Your task to perform on an android device: find snoozed emails in the gmail app Image 0: 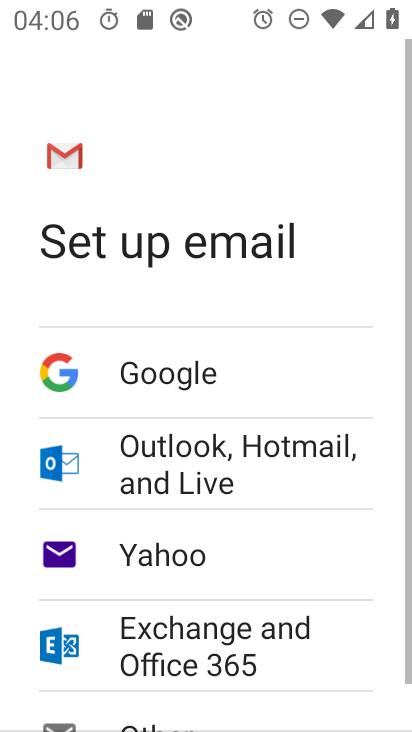
Step 0: press home button
Your task to perform on an android device: find snoozed emails in the gmail app Image 1: 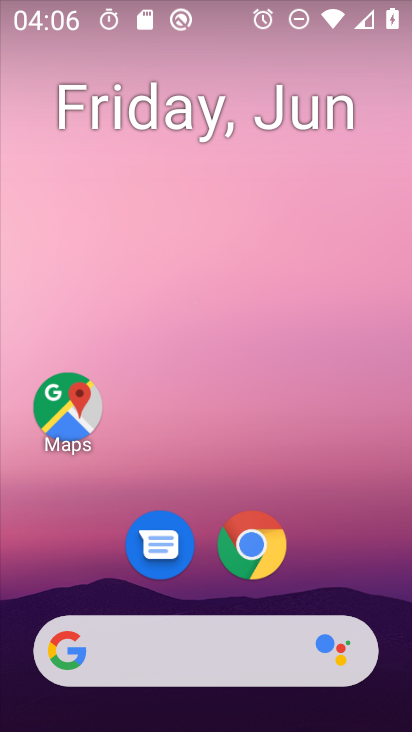
Step 1: drag from (314, 314) to (309, 59)
Your task to perform on an android device: find snoozed emails in the gmail app Image 2: 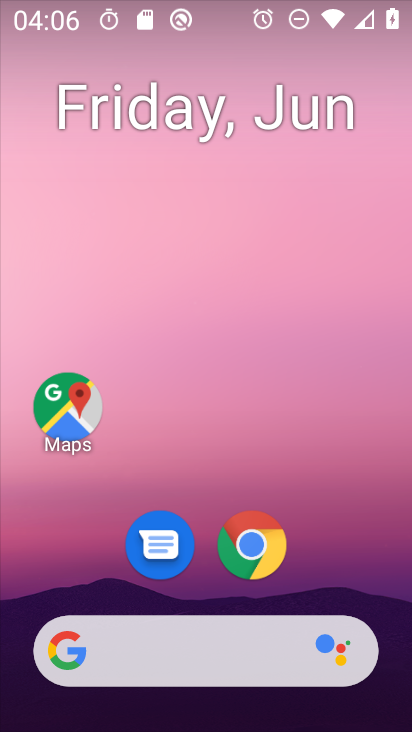
Step 2: drag from (354, 561) to (334, 5)
Your task to perform on an android device: find snoozed emails in the gmail app Image 3: 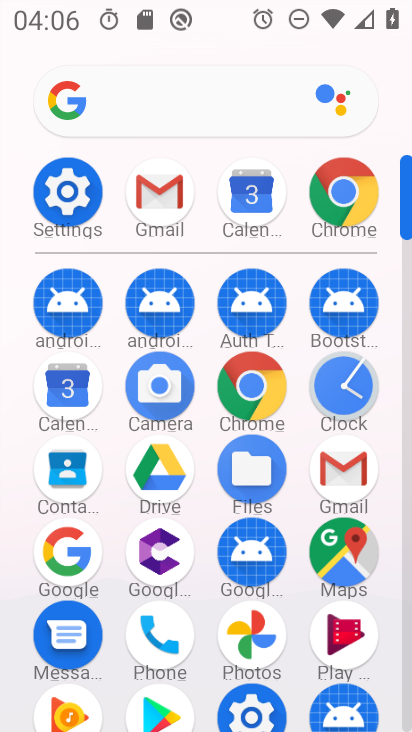
Step 3: click (162, 187)
Your task to perform on an android device: find snoozed emails in the gmail app Image 4: 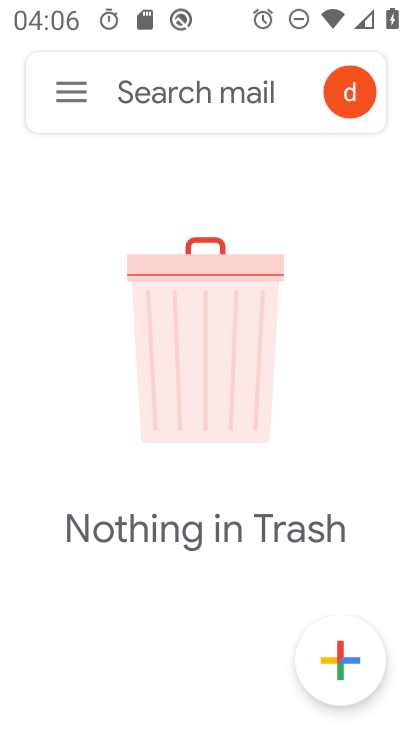
Step 4: click (77, 99)
Your task to perform on an android device: find snoozed emails in the gmail app Image 5: 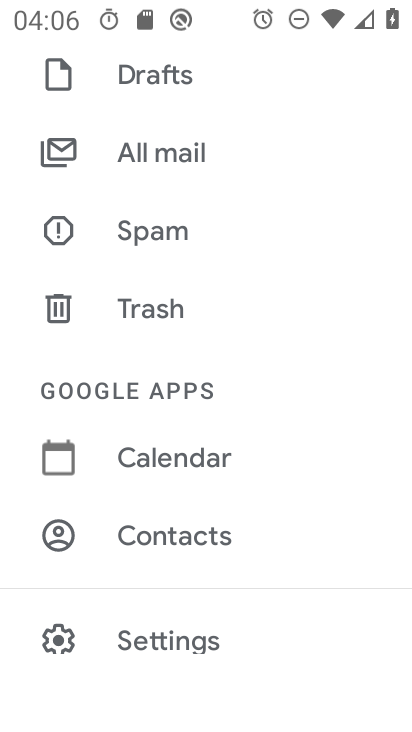
Step 5: drag from (240, 598) to (245, 638)
Your task to perform on an android device: find snoozed emails in the gmail app Image 6: 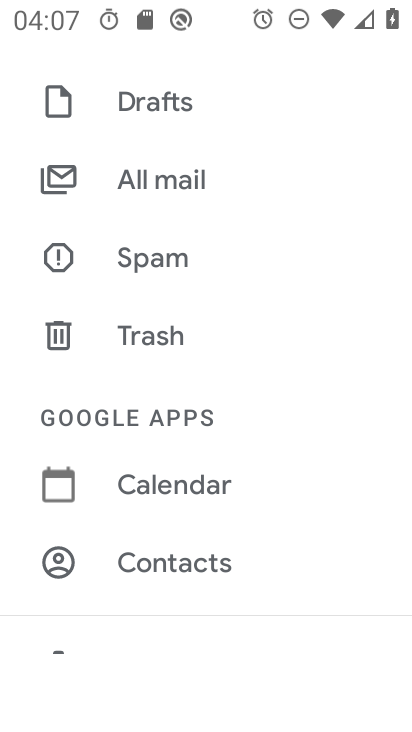
Step 6: drag from (235, 149) to (261, 652)
Your task to perform on an android device: find snoozed emails in the gmail app Image 7: 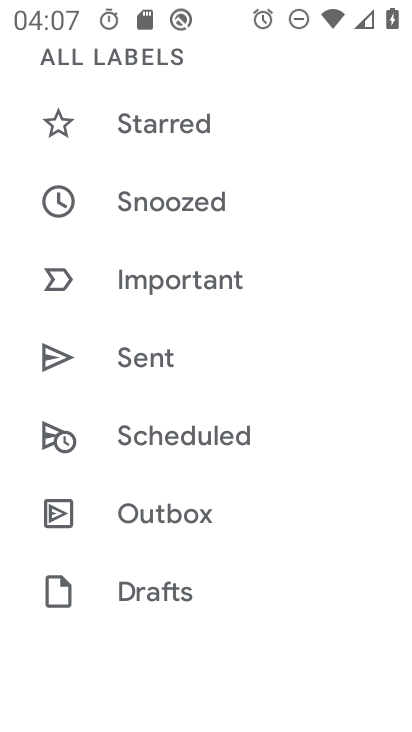
Step 7: click (169, 189)
Your task to perform on an android device: find snoozed emails in the gmail app Image 8: 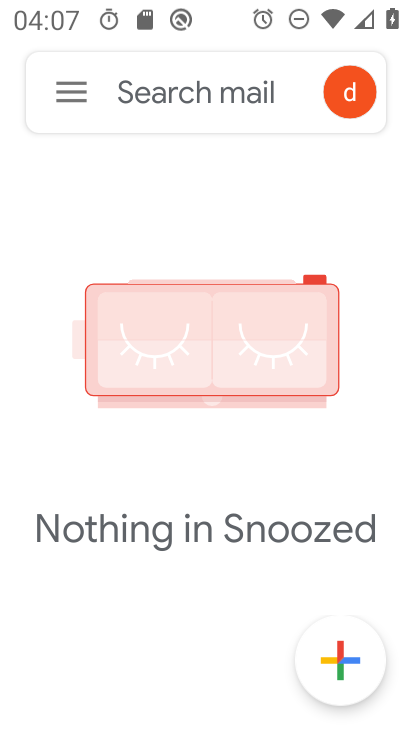
Step 8: task complete